Your task to perform on an android device: Open Google Chrome and open the bookmarks view Image 0: 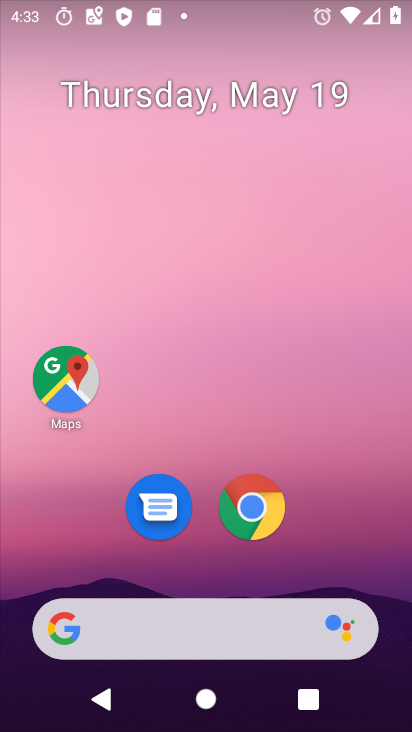
Step 0: click (251, 513)
Your task to perform on an android device: Open Google Chrome and open the bookmarks view Image 1: 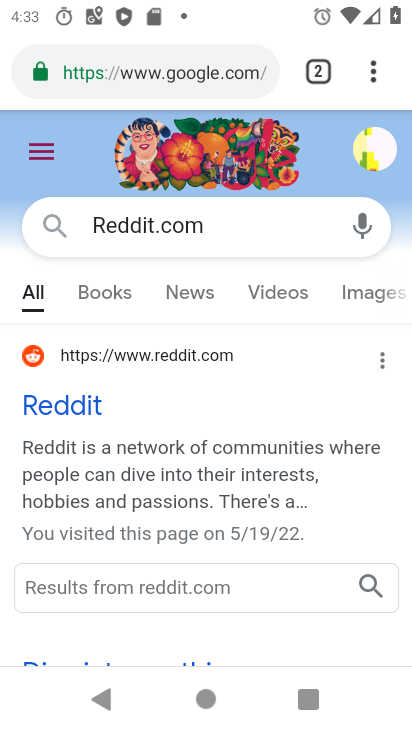
Step 1: click (369, 66)
Your task to perform on an android device: Open Google Chrome and open the bookmarks view Image 2: 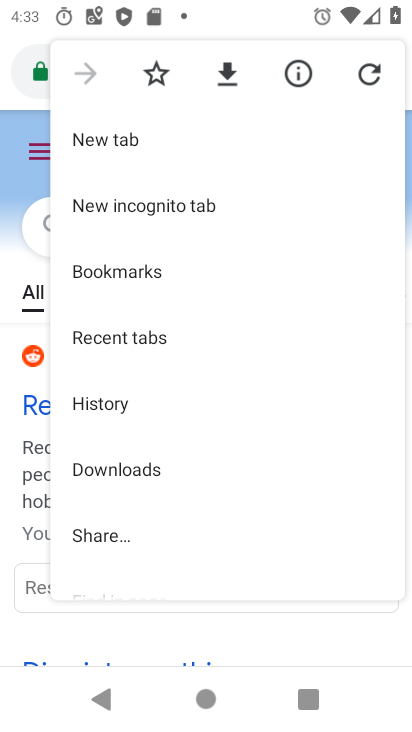
Step 2: click (117, 266)
Your task to perform on an android device: Open Google Chrome and open the bookmarks view Image 3: 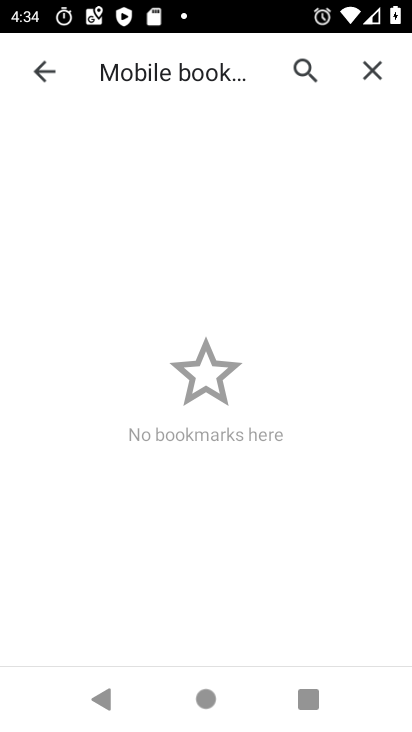
Step 3: task complete